Your task to perform on an android device: remove spam from my inbox in the gmail app Image 0: 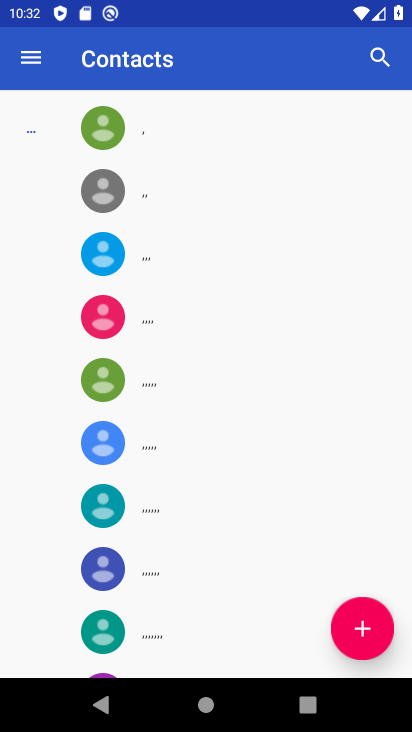
Step 0: press home button
Your task to perform on an android device: remove spam from my inbox in the gmail app Image 1: 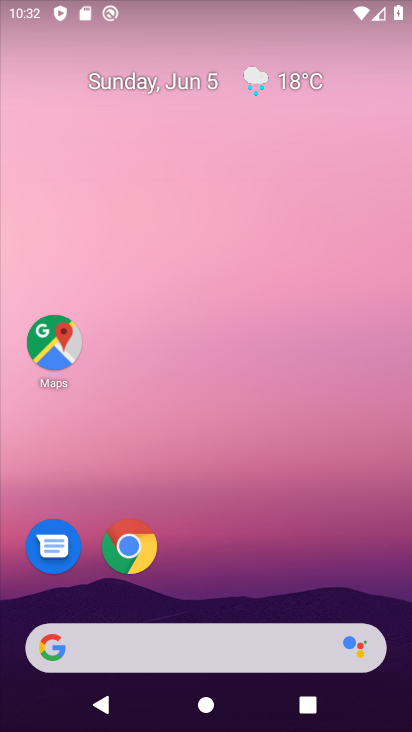
Step 1: drag from (159, 724) to (214, 115)
Your task to perform on an android device: remove spam from my inbox in the gmail app Image 2: 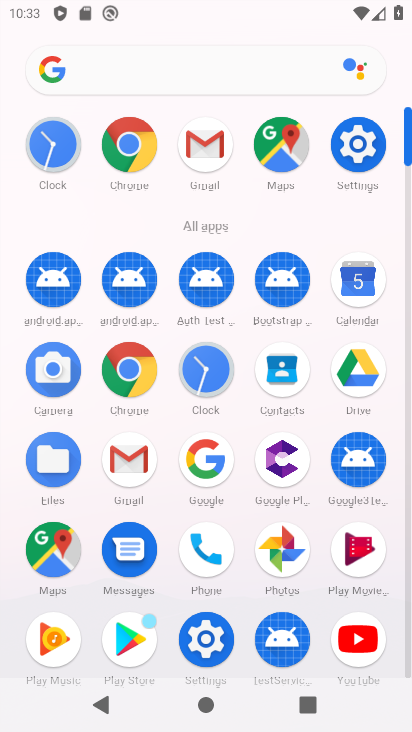
Step 2: click (209, 161)
Your task to perform on an android device: remove spam from my inbox in the gmail app Image 3: 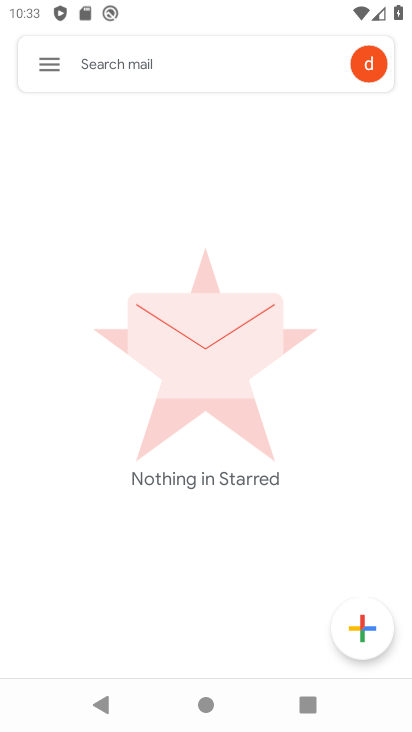
Step 3: click (53, 66)
Your task to perform on an android device: remove spam from my inbox in the gmail app Image 4: 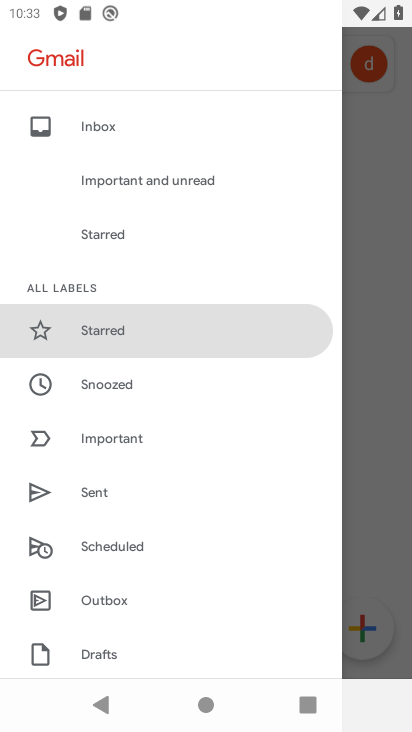
Step 4: drag from (164, 600) to (160, 322)
Your task to perform on an android device: remove spam from my inbox in the gmail app Image 5: 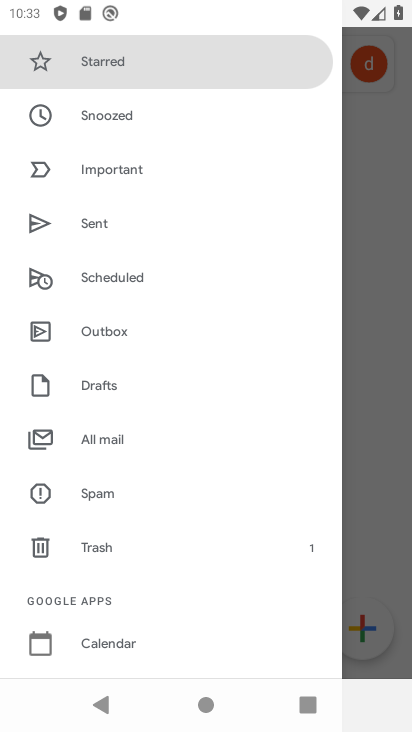
Step 5: click (110, 492)
Your task to perform on an android device: remove spam from my inbox in the gmail app Image 6: 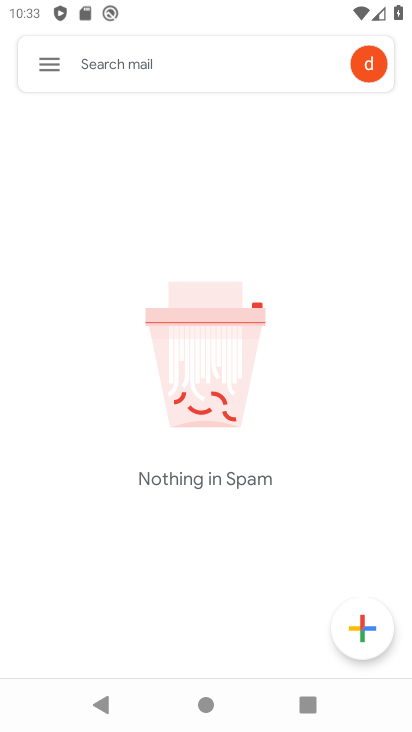
Step 6: task complete